Your task to perform on an android device: Check the weather Image 0: 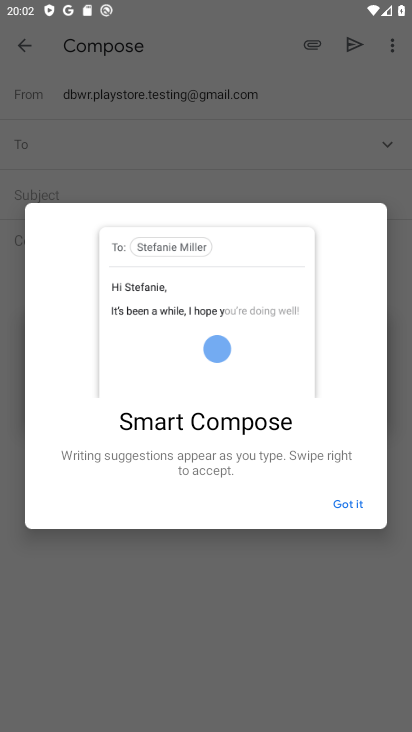
Step 0: press home button
Your task to perform on an android device: Check the weather Image 1: 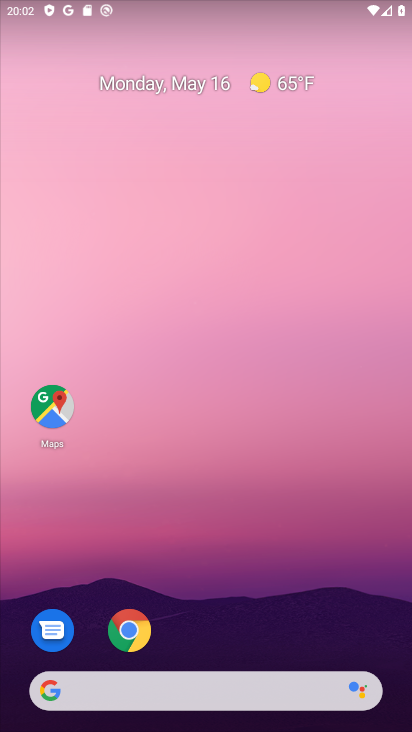
Step 1: click (228, 227)
Your task to perform on an android device: Check the weather Image 2: 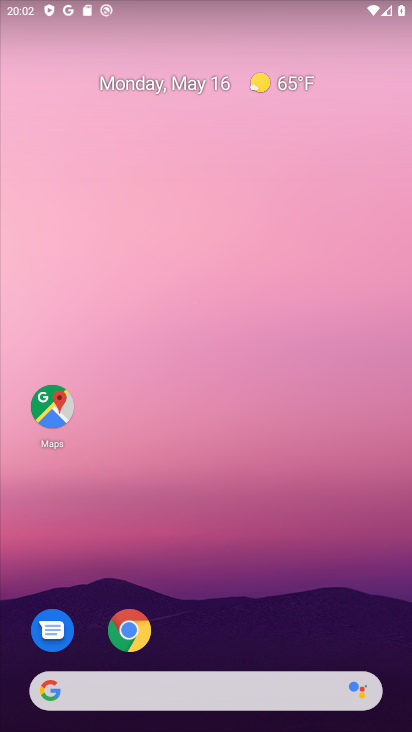
Step 2: drag from (224, 646) to (228, 184)
Your task to perform on an android device: Check the weather Image 3: 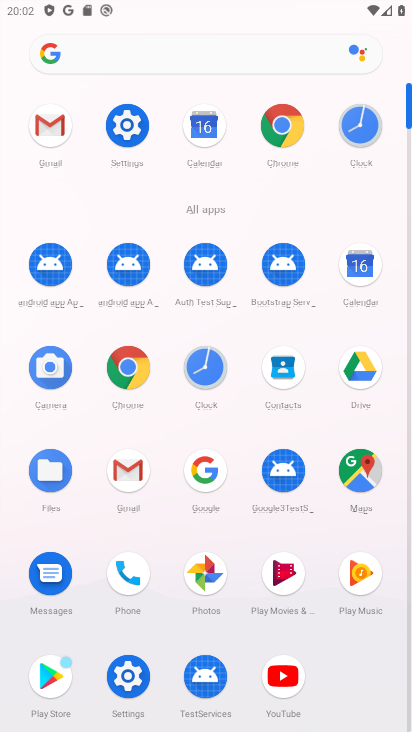
Step 3: click (200, 492)
Your task to perform on an android device: Check the weather Image 4: 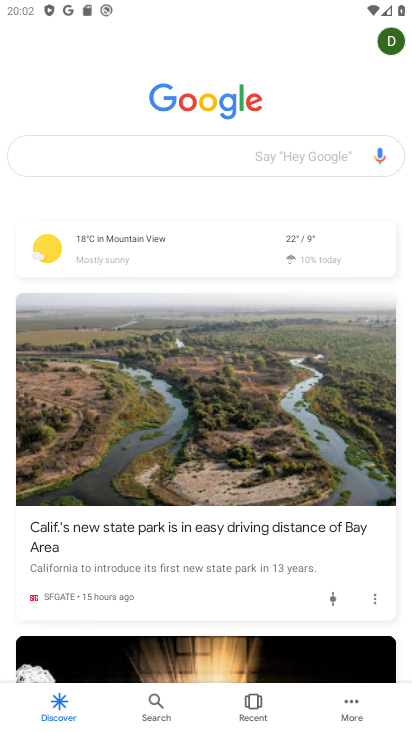
Step 4: click (173, 238)
Your task to perform on an android device: Check the weather Image 5: 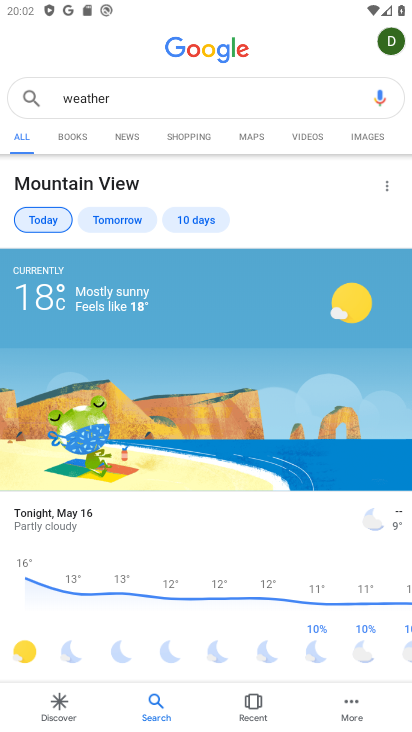
Step 5: task complete